Your task to perform on an android device: change your default location settings in chrome Image 0: 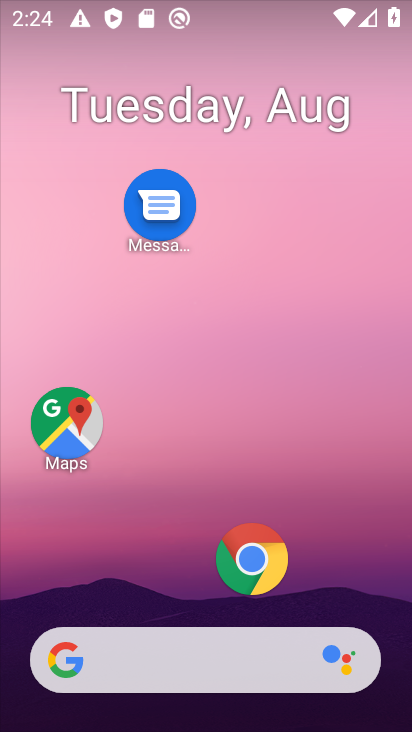
Step 0: click (254, 558)
Your task to perform on an android device: change your default location settings in chrome Image 1: 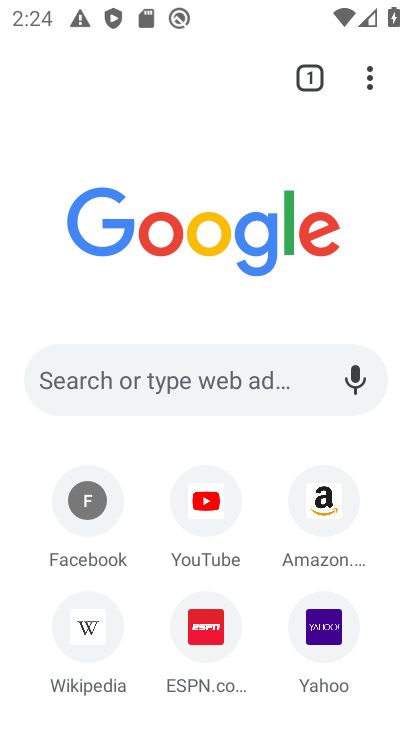
Step 1: click (363, 72)
Your task to perform on an android device: change your default location settings in chrome Image 2: 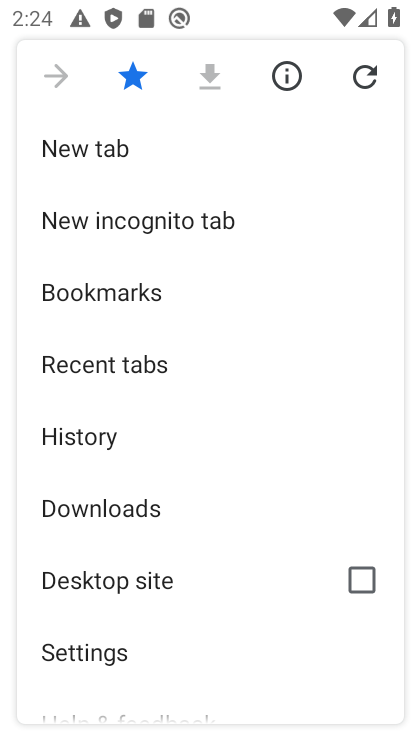
Step 2: click (86, 651)
Your task to perform on an android device: change your default location settings in chrome Image 3: 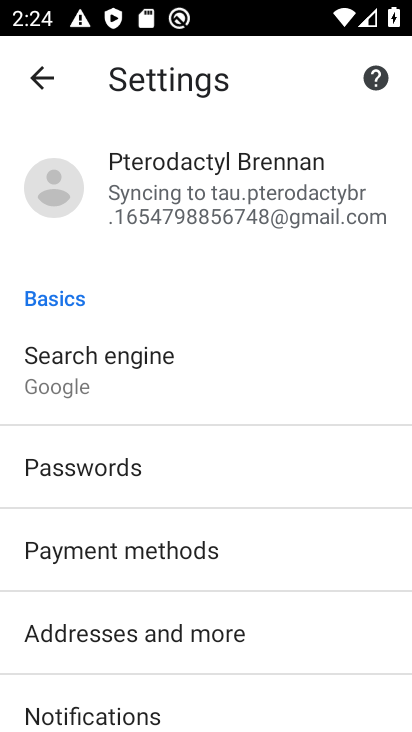
Step 3: drag from (256, 614) to (259, 267)
Your task to perform on an android device: change your default location settings in chrome Image 4: 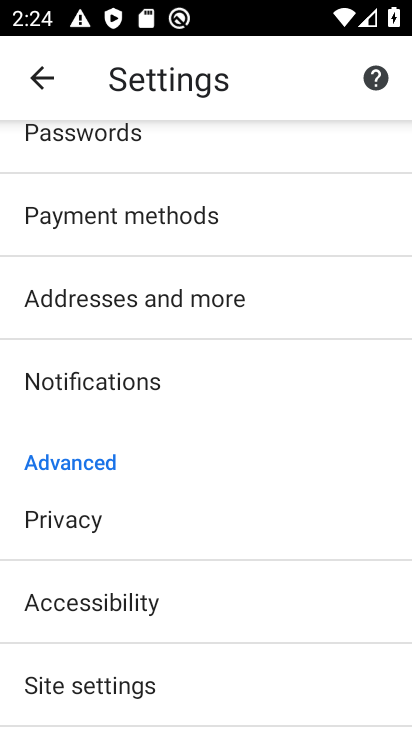
Step 4: click (94, 681)
Your task to perform on an android device: change your default location settings in chrome Image 5: 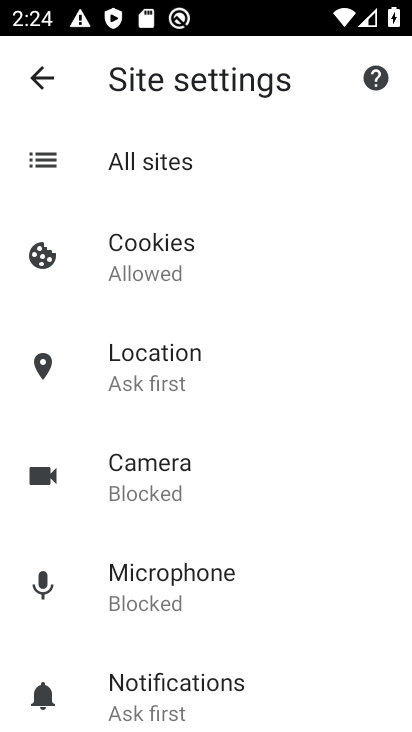
Step 5: click (155, 346)
Your task to perform on an android device: change your default location settings in chrome Image 6: 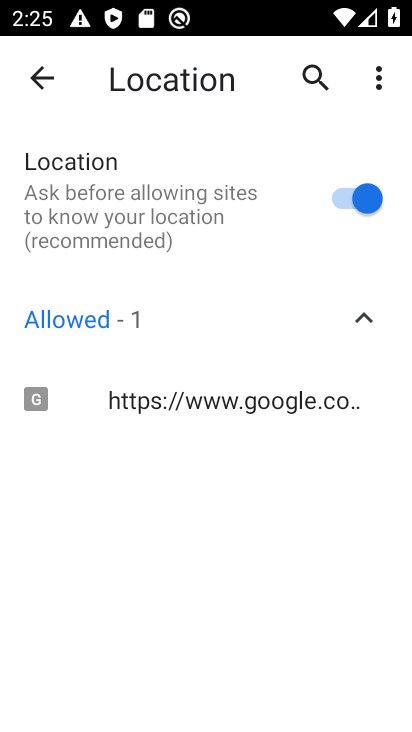
Step 6: click (364, 198)
Your task to perform on an android device: change your default location settings in chrome Image 7: 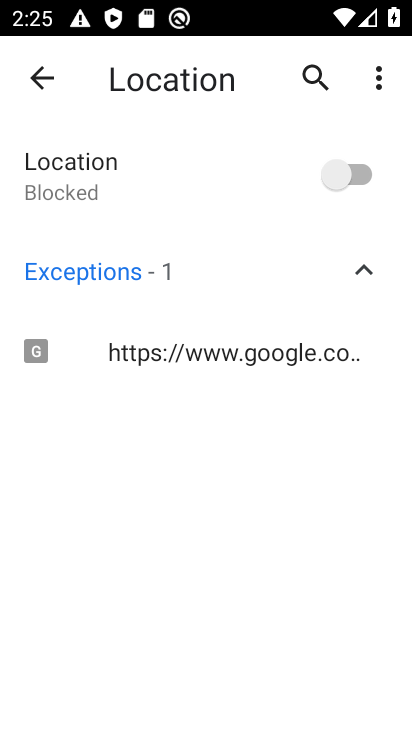
Step 7: task complete